Your task to perform on an android device: turn off location Image 0: 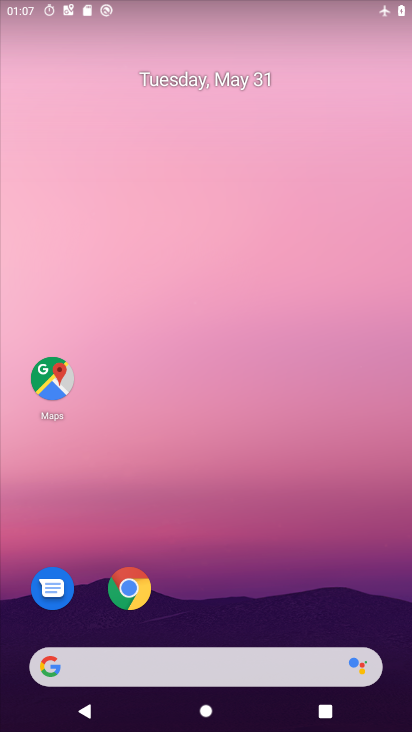
Step 0: drag from (320, 656) to (275, 0)
Your task to perform on an android device: turn off location Image 1: 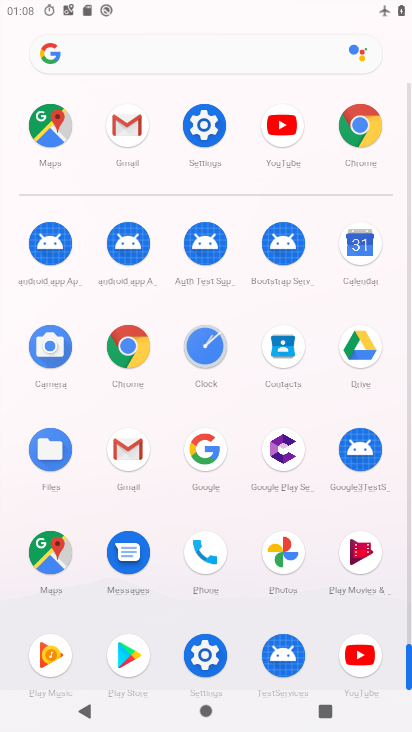
Step 1: click (216, 128)
Your task to perform on an android device: turn off location Image 2: 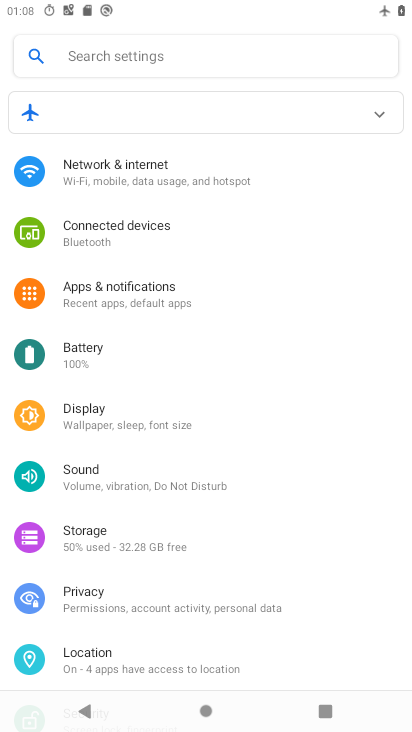
Step 2: click (239, 657)
Your task to perform on an android device: turn off location Image 3: 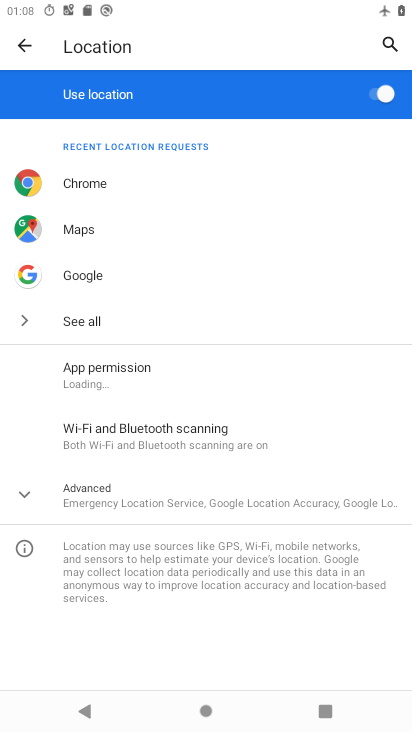
Step 3: click (370, 95)
Your task to perform on an android device: turn off location Image 4: 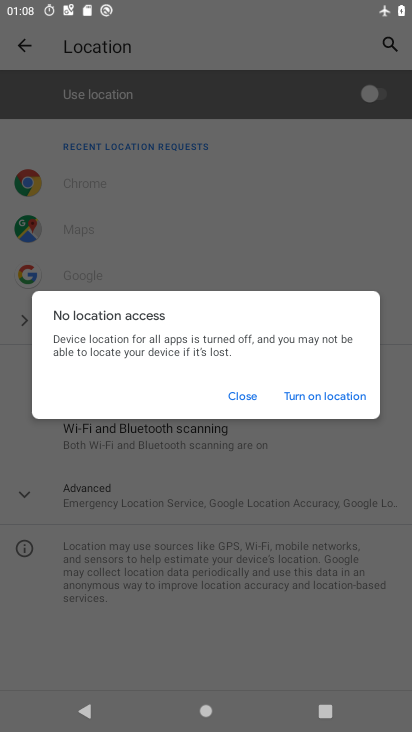
Step 4: task complete